Your task to perform on an android device: Search for logitech g pro on ebay.com, select the first entry, and add it to the cart. Image 0: 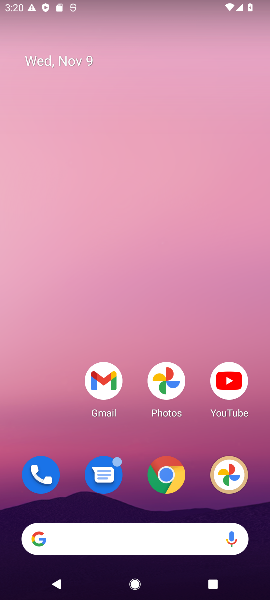
Step 0: drag from (90, 512) to (102, 0)
Your task to perform on an android device: Search for logitech g pro on ebay.com, select the first entry, and add it to the cart. Image 1: 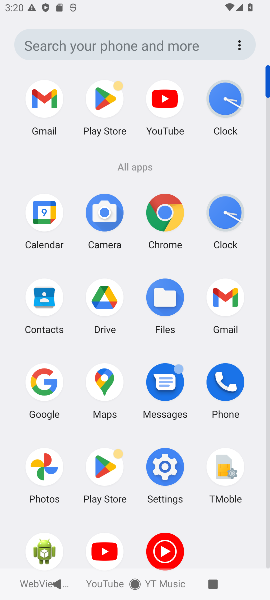
Step 1: click (158, 221)
Your task to perform on an android device: Search for logitech g pro on ebay.com, select the first entry, and add it to the cart. Image 2: 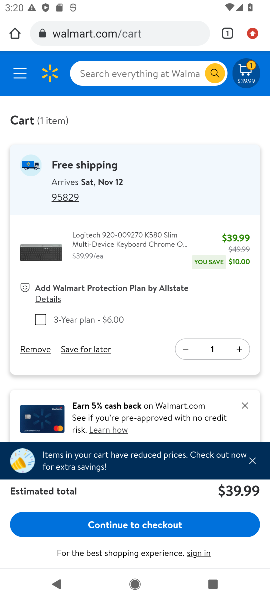
Step 2: click (125, 33)
Your task to perform on an android device: Search for logitech g pro on ebay.com, select the first entry, and add it to the cart. Image 3: 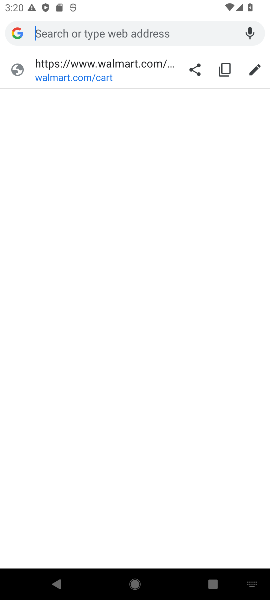
Step 3: type "ebay.com"
Your task to perform on an android device: Search for logitech g pro on ebay.com, select the first entry, and add it to the cart. Image 4: 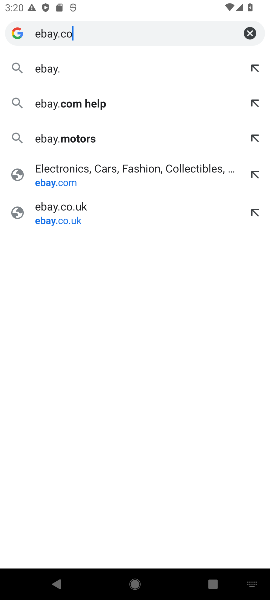
Step 4: press enter
Your task to perform on an android device: Search for logitech g pro on ebay.com, select the first entry, and add it to the cart. Image 5: 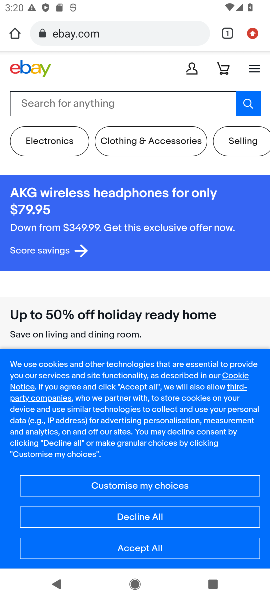
Step 5: click (119, 111)
Your task to perform on an android device: Search for logitech g pro on ebay.com, select the first entry, and add it to the cart. Image 6: 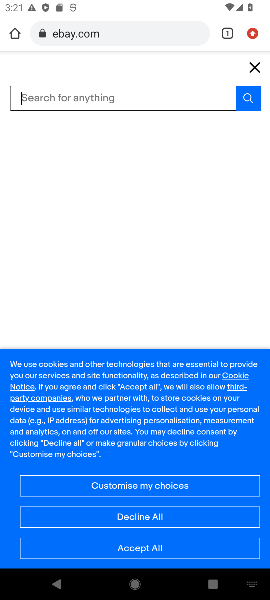
Step 6: type "logitech g pro"
Your task to perform on an android device: Search for logitech g pro on ebay.com, select the first entry, and add it to the cart. Image 7: 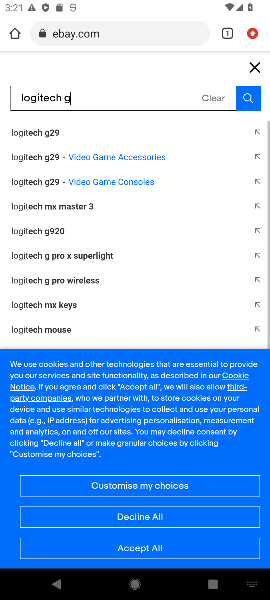
Step 7: press enter
Your task to perform on an android device: Search for logitech g pro on ebay.com, select the first entry, and add it to the cart. Image 8: 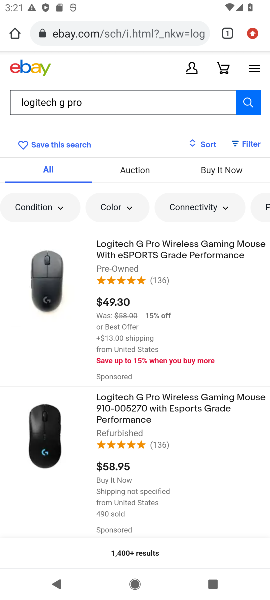
Step 8: click (141, 244)
Your task to perform on an android device: Search for logitech g pro on ebay.com, select the first entry, and add it to the cart. Image 9: 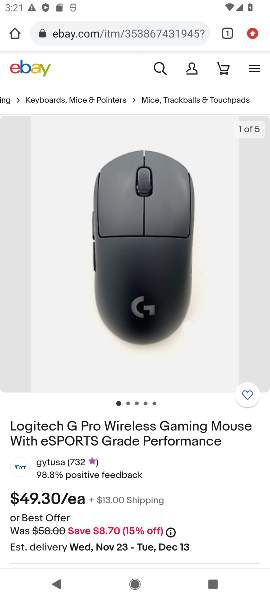
Step 9: drag from (189, 457) to (212, 234)
Your task to perform on an android device: Search for logitech g pro on ebay.com, select the first entry, and add it to the cart. Image 10: 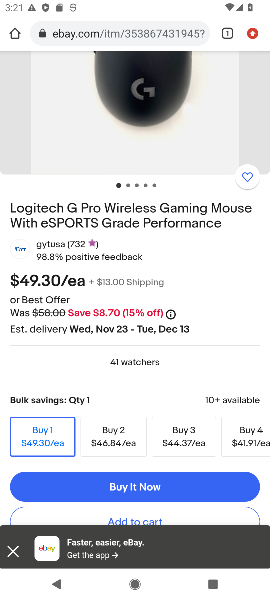
Step 10: drag from (140, 470) to (125, 245)
Your task to perform on an android device: Search for logitech g pro on ebay.com, select the first entry, and add it to the cart. Image 11: 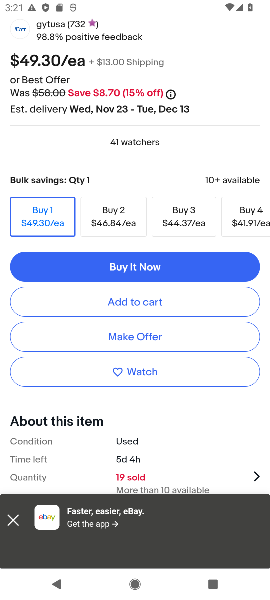
Step 11: click (117, 311)
Your task to perform on an android device: Search for logitech g pro on ebay.com, select the first entry, and add it to the cart. Image 12: 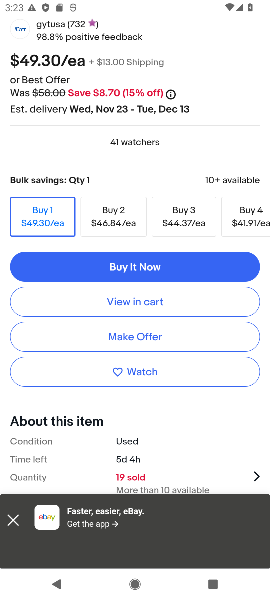
Step 12: task complete